Your task to perform on an android device: uninstall "Duolingo: language lessons" Image 0: 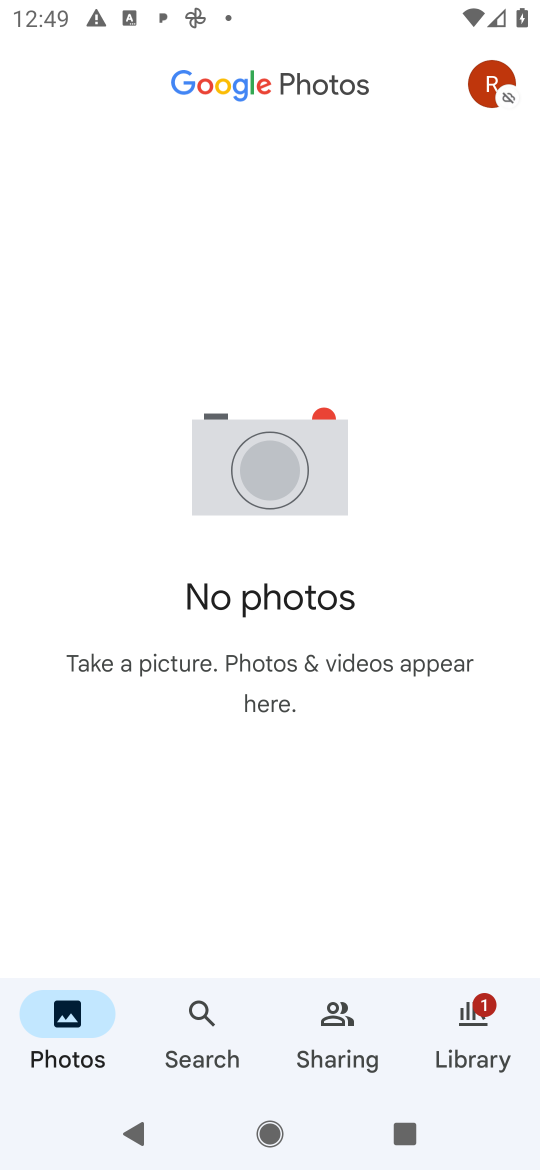
Step 0: press home button
Your task to perform on an android device: uninstall "Duolingo: language lessons" Image 1: 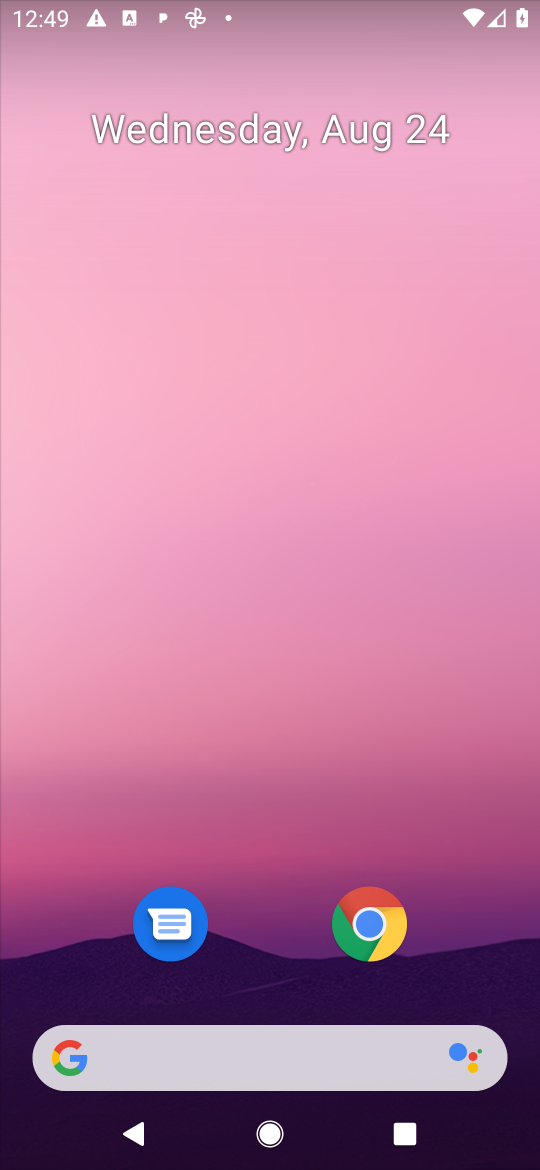
Step 1: drag from (469, 957) to (466, 123)
Your task to perform on an android device: uninstall "Duolingo: language lessons" Image 2: 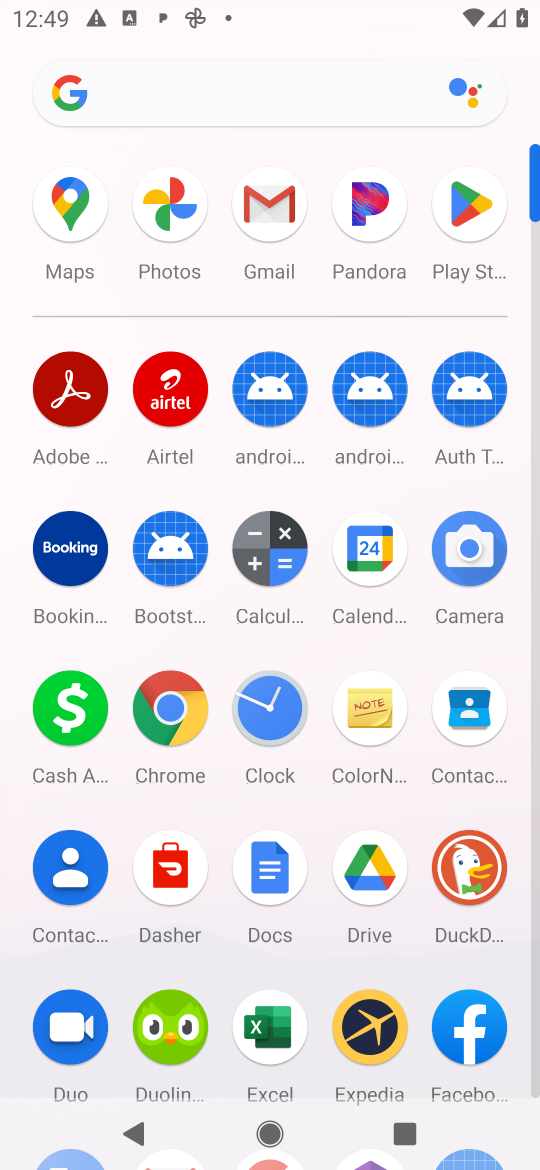
Step 2: click (469, 215)
Your task to perform on an android device: uninstall "Duolingo: language lessons" Image 3: 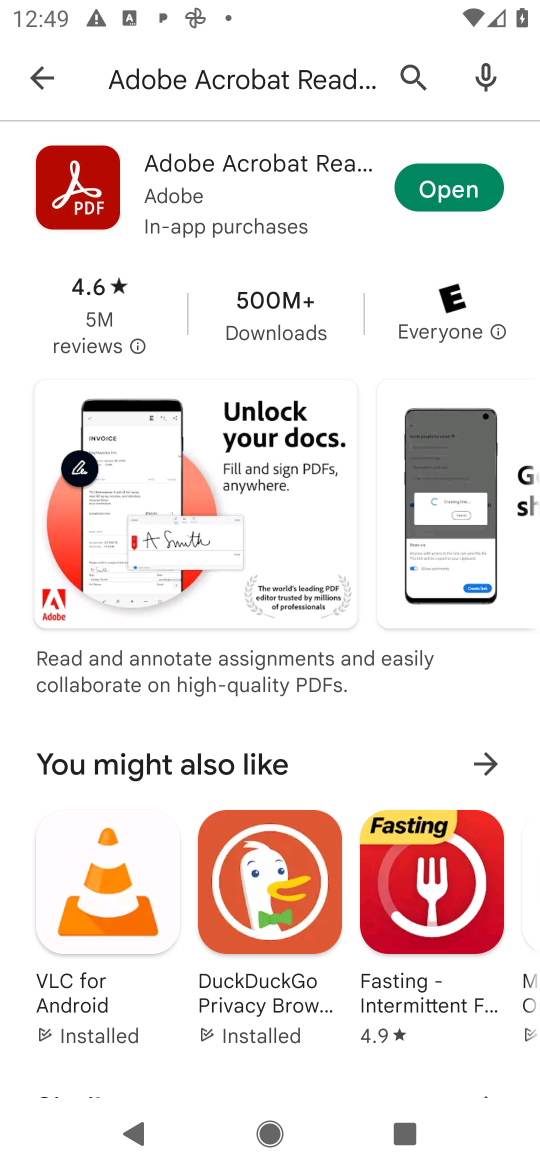
Step 3: press back button
Your task to perform on an android device: uninstall "Duolingo: language lessons" Image 4: 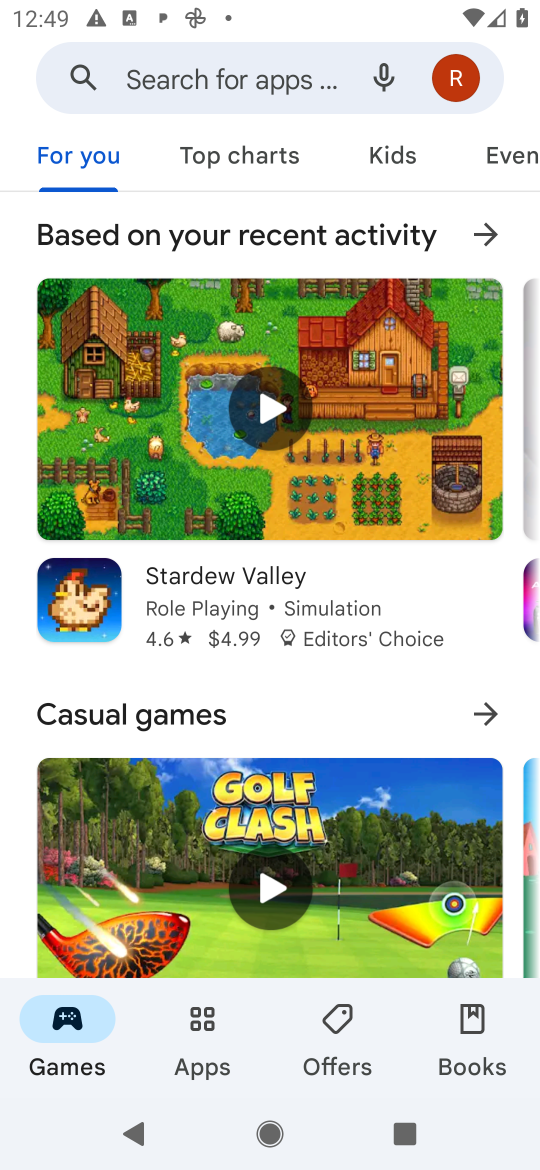
Step 4: click (241, 78)
Your task to perform on an android device: uninstall "Duolingo: language lessons" Image 5: 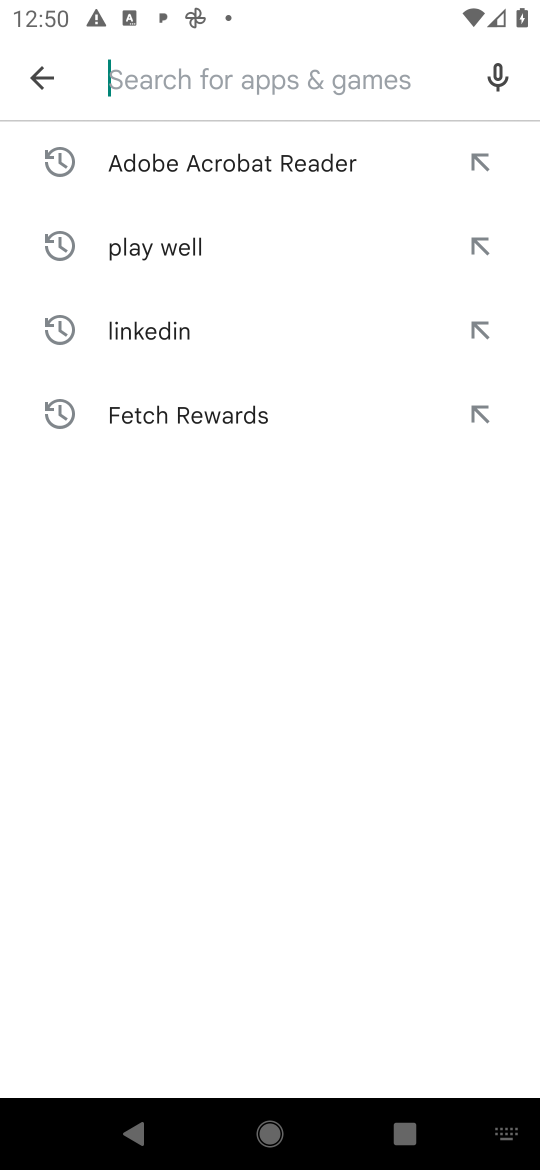
Step 5: type "Duolingo: language lessons"
Your task to perform on an android device: uninstall "Duolingo: language lessons" Image 6: 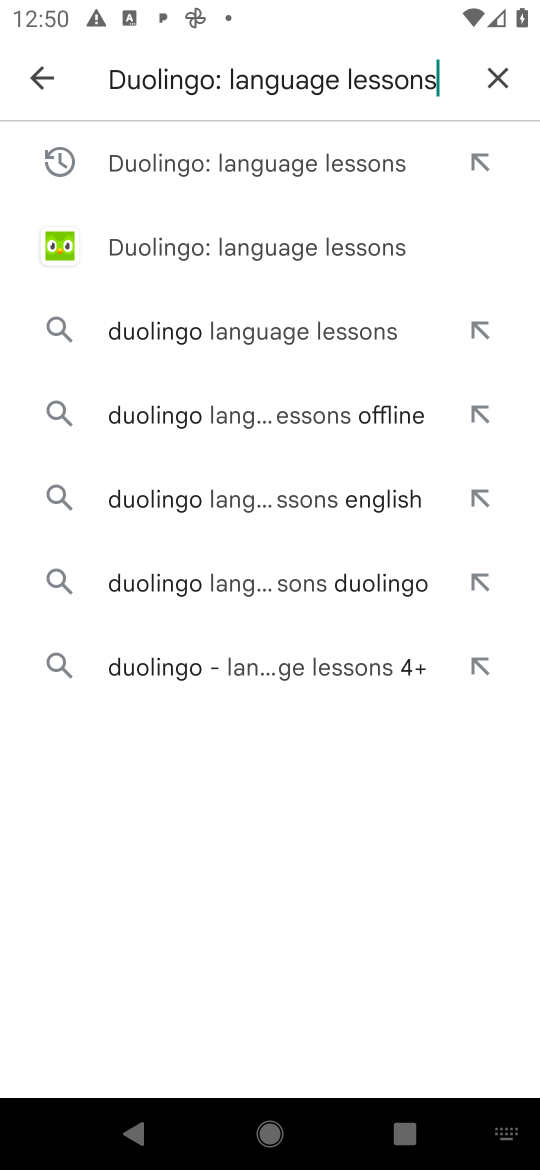
Step 6: press enter
Your task to perform on an android device: uninstall "Duolingo: language lessons" Image 7: 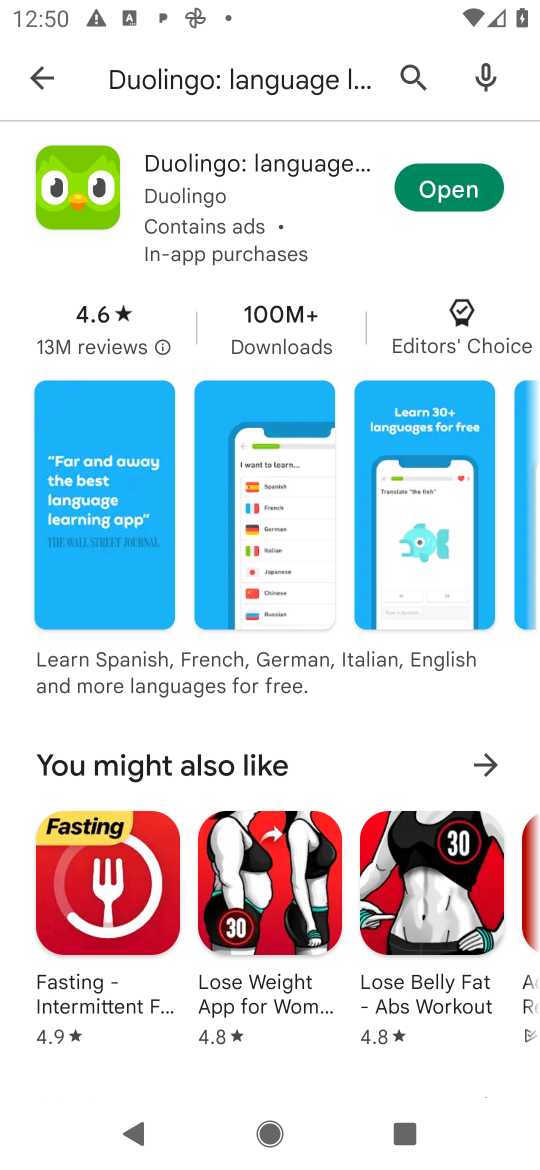
Step 7: task complete